Your task to perform on an android device: move an email to a new category in the gmail app Image 0: 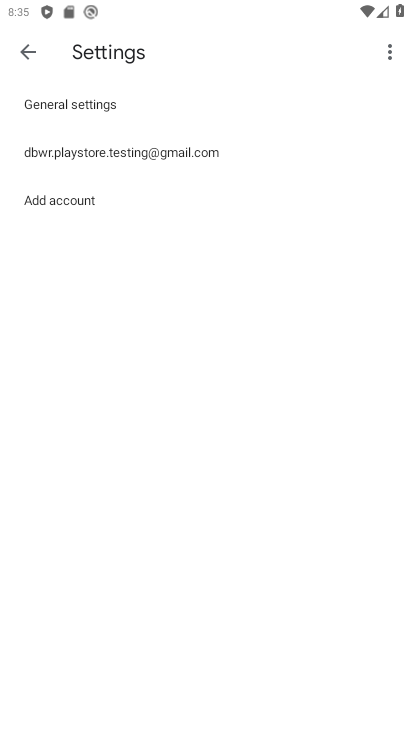
Step 0: press home button
Your task to perform on an android device: move an email to a new category in the gmail app Image 1: 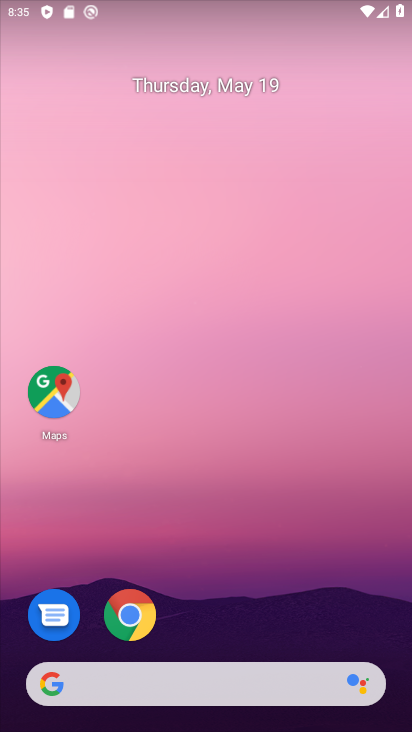
Step 1: drag from (353, 633) to (300, 83)
Your task to perform on an android device: move an email to a new category in the gmail app Image 2: 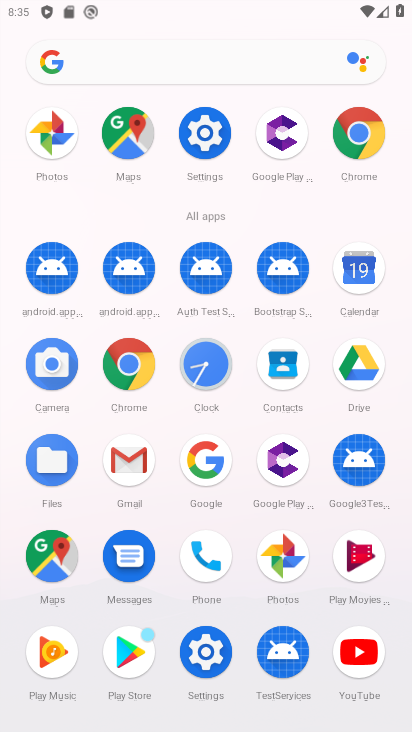
Step 2: click (133, 467)
Your task to perform on an android device: move an email to a new category in the gmail app Image 3: 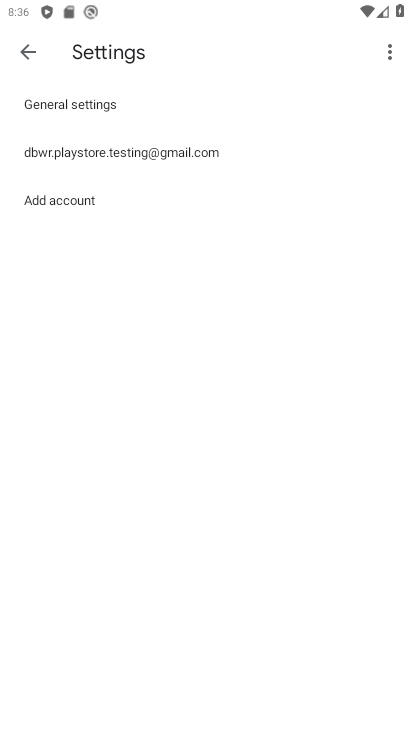
Step 3: click (24, 54)
Your task to perform on an android device: move an email to a new category in the gmail app Image 4: 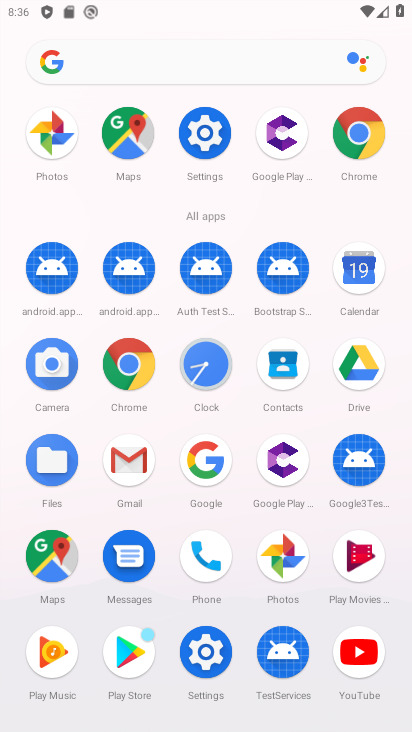
Step 4: click (24, 54)
Your task to perform on an android device: move an email to a new category in the gmail app Image 5: 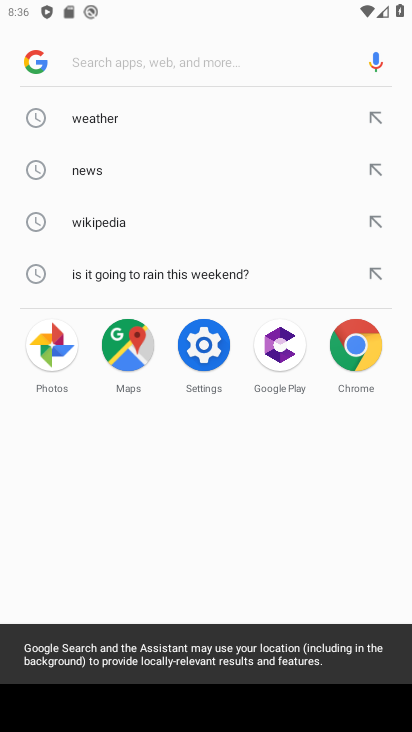
Step 5: press back button
Your task to perform on an android device: move an email to a new category in the gmail app Image 6: 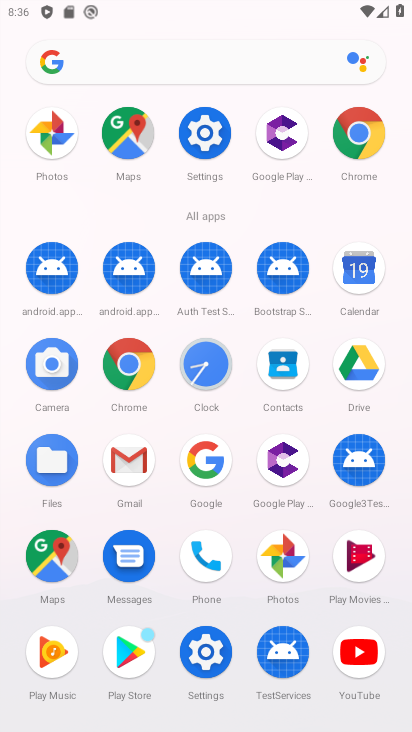
Step 6: click (131, 463)
Your task to perform on an android device: move an email to a new category in the gmail app Image 7: 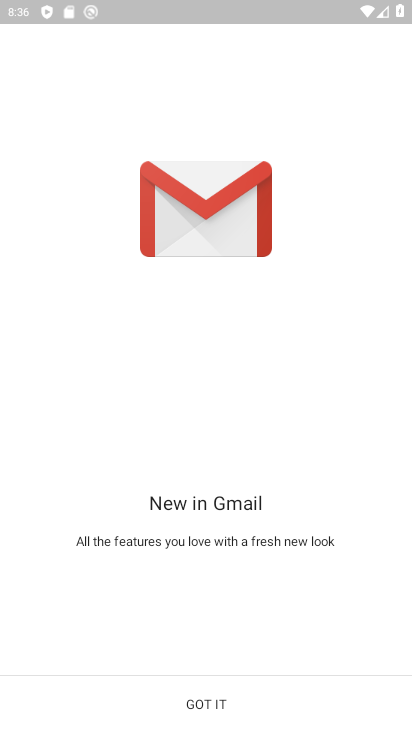
Step 7: click (190, 702)
Your task to perform on an android device: move an email to a new category in the gmail app Image 8: 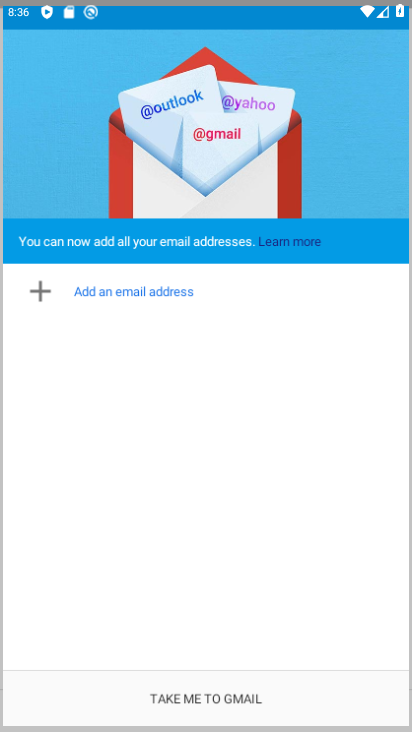
Step 8: click (187, 702)
Your task to perform on an android device: move an email to a new category in the gmail app Image 9: 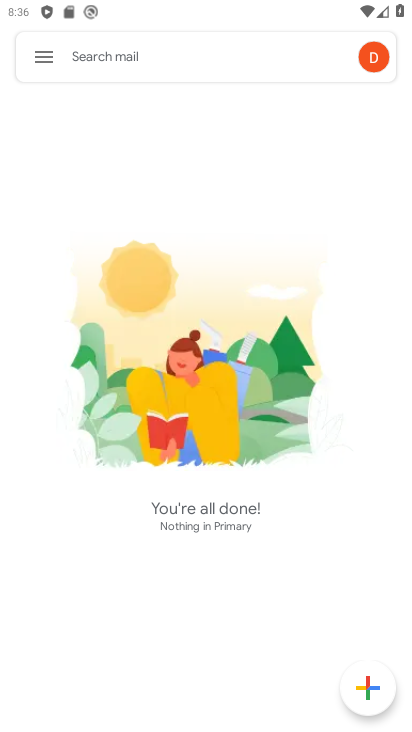
Step 9: click (39, 59)
Your task to perform on an android device: move an email to a new category in the gmail app Image 10: 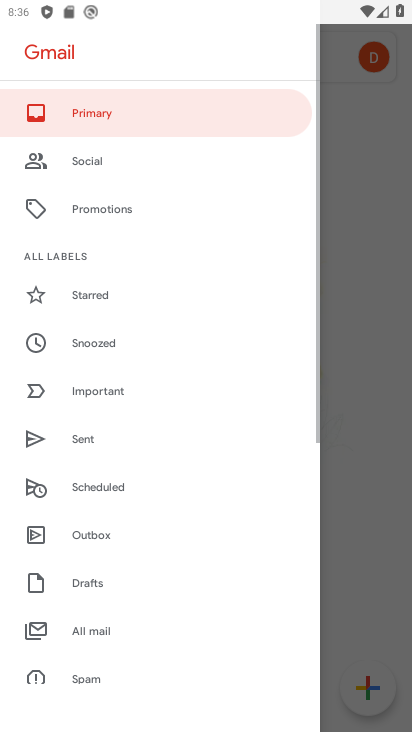
Step 10: task complete